Your task to perform on an android device: search for starred emails in the gmail app Image 0: 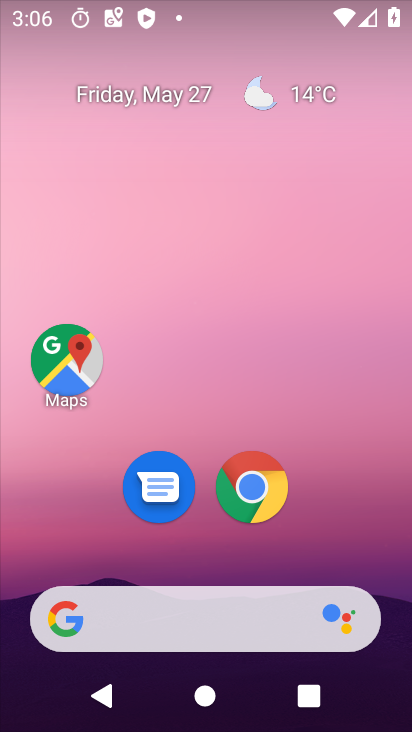
Step 0: drag from (346, 480) to (288, 52)
Your task to perform on an android device: search for starred emails in the gmail app Image 1: 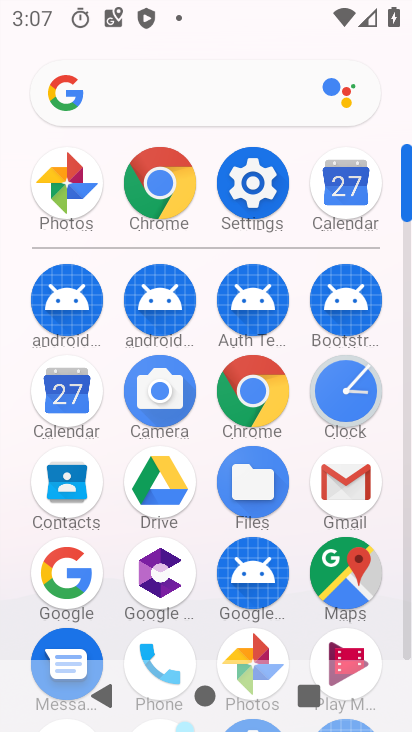
Step 1: click (345, 470)
Your task to perform on an android device: search for starred emails in the gmail app Image 2: 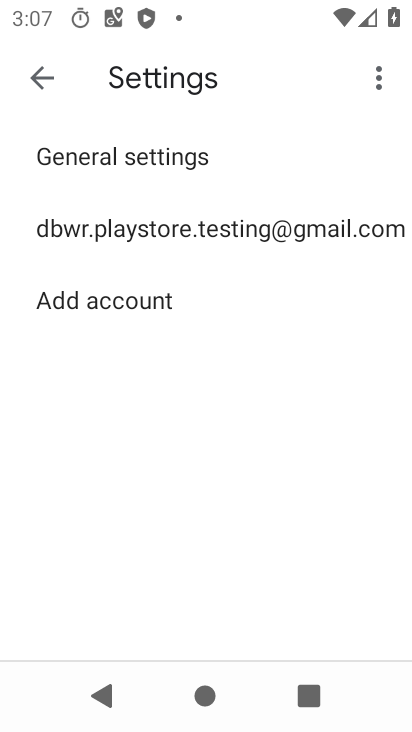
Step 2: click (42, 73)
Your task to perform on an android device: search for starred emails in the gmail app Image 3: 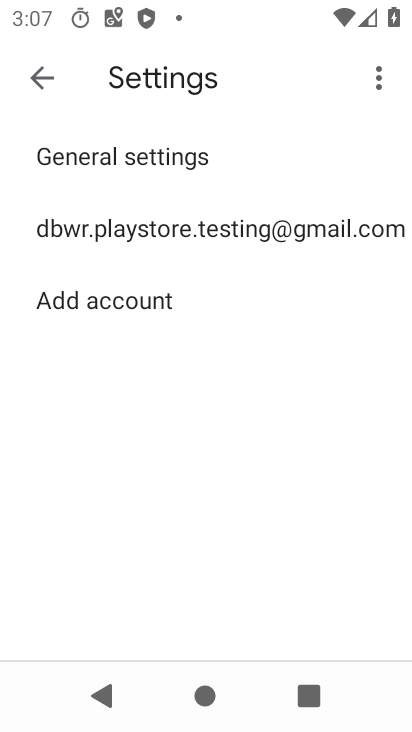
Step 3: click (40, 72)
Your task to perform on an android device: search for starred emails in the gmail app Image 4: 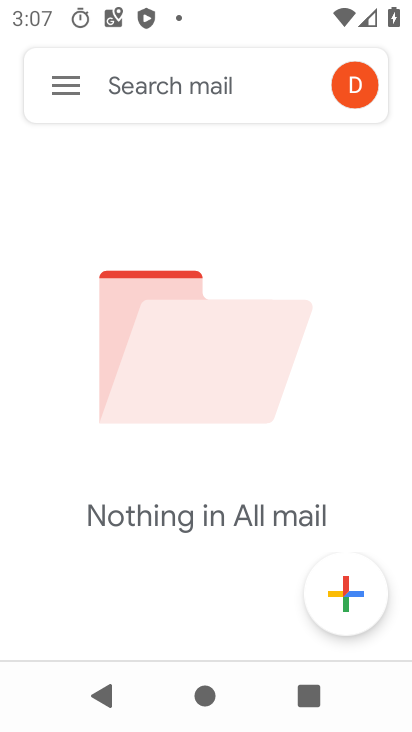
Step 4: click (48, 77)
Your task to perform on an android device: search for starred emails in the gmail app Image 5: 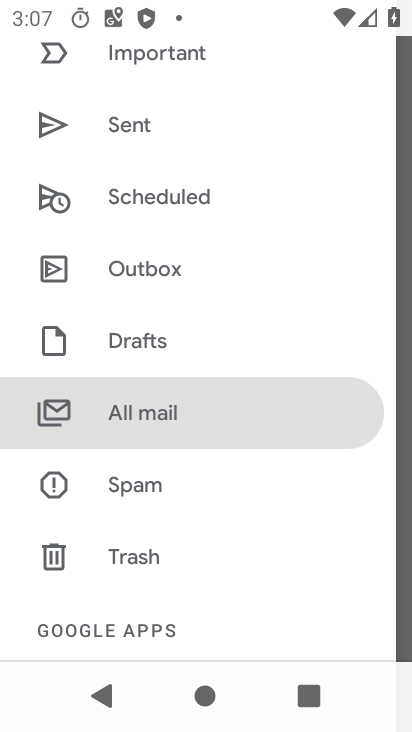
Step 5: drag from (159, 229) to (236, 659)
Your task to perform on an android device: search for starred emails in the gmail app Image 6: 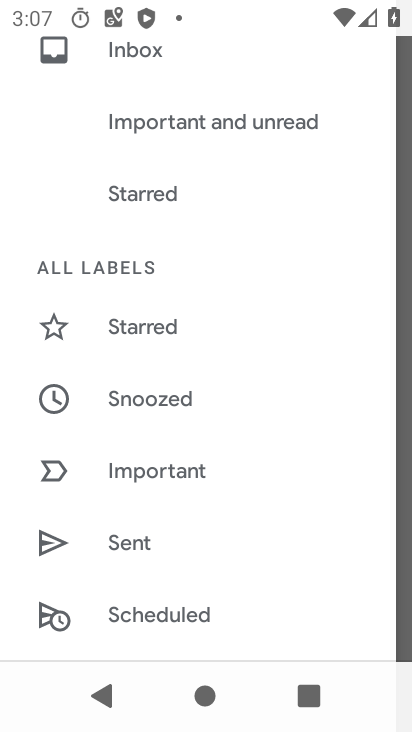
Step 6: click (157, 328)
Your task to perform on an android device: search for starred emails in the gmail app Image 7: 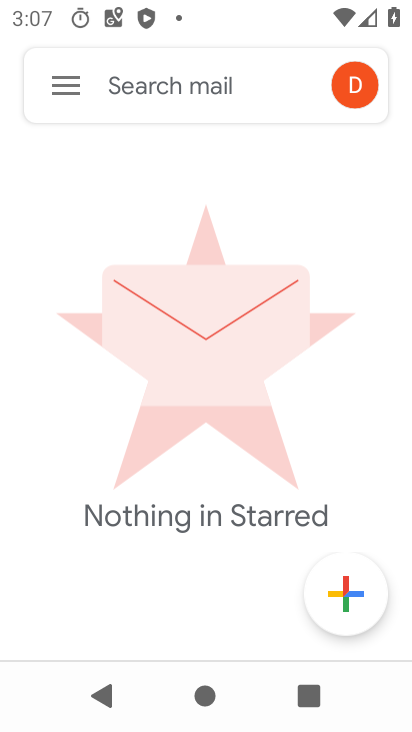
Step 7: task complete